Your task to perform on an android device: open app "Spotify" (install if not already installed) and enter user name: "infallible@icloud.com" and password: "implored" Image 0: 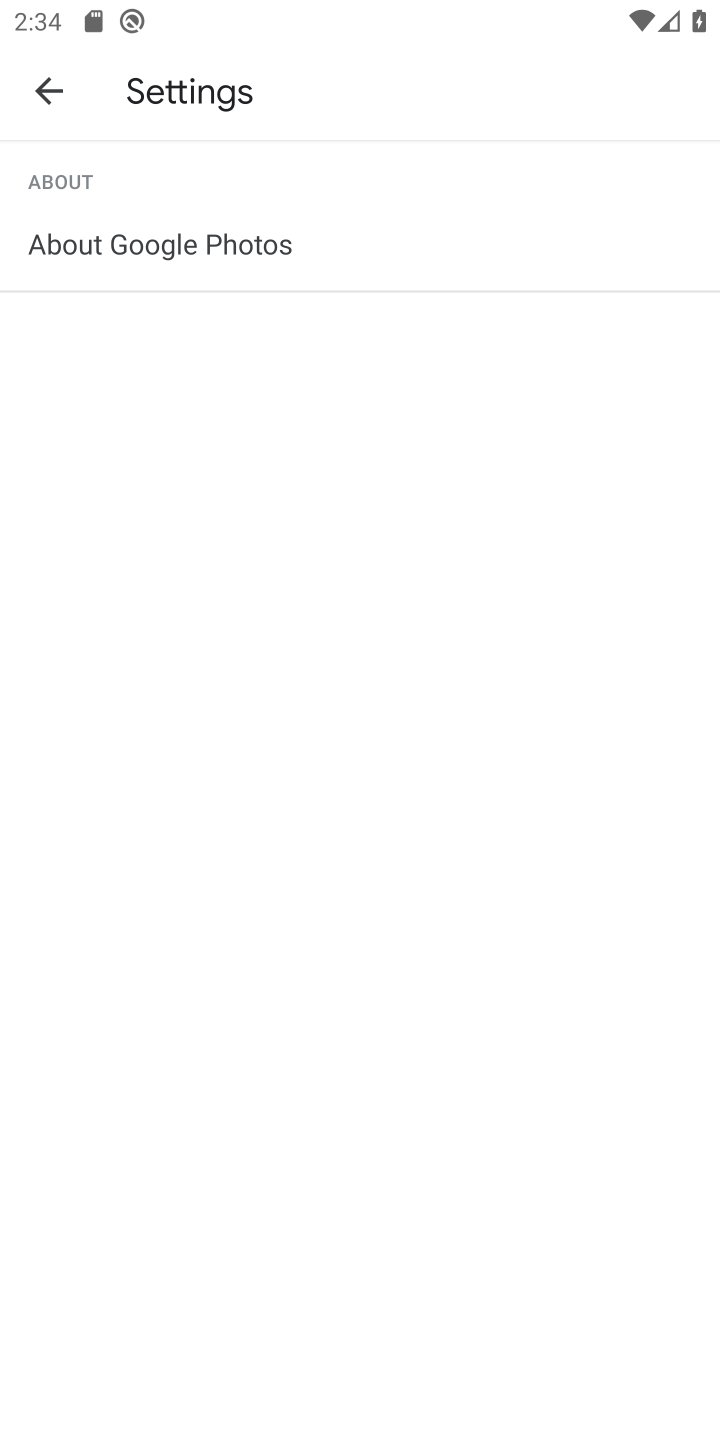
Step 0: press home button
Your task to perform on an android device: open app "Spotify" (install if not already installed) and enter user name: "infallible@icloud.com" and password: "implored" Image 1: 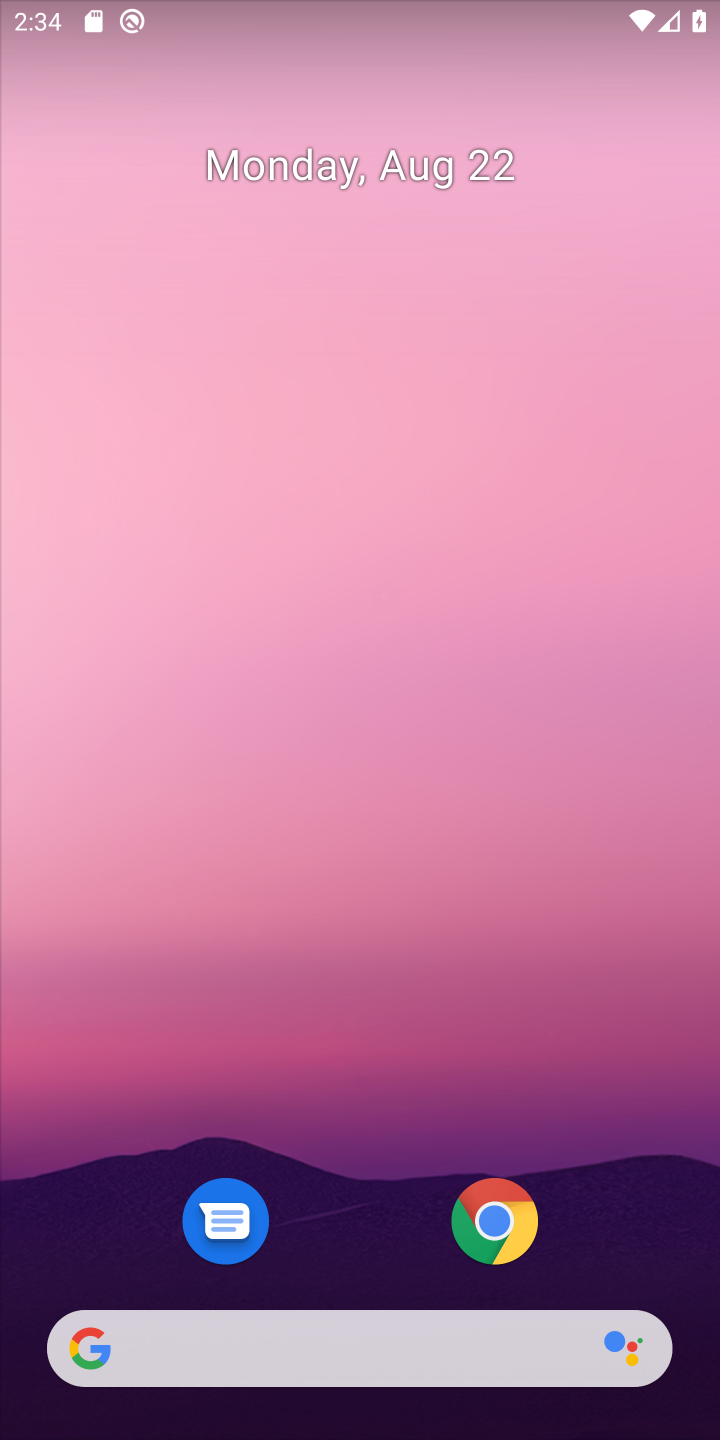
Step 1: drag from (340, 1241) to (365, 16)
Your task to perform on an android device: open app "Spotify" (install if not already installed) and enter user name: "infallible@icloud.com" and password: "implored" Image 2: 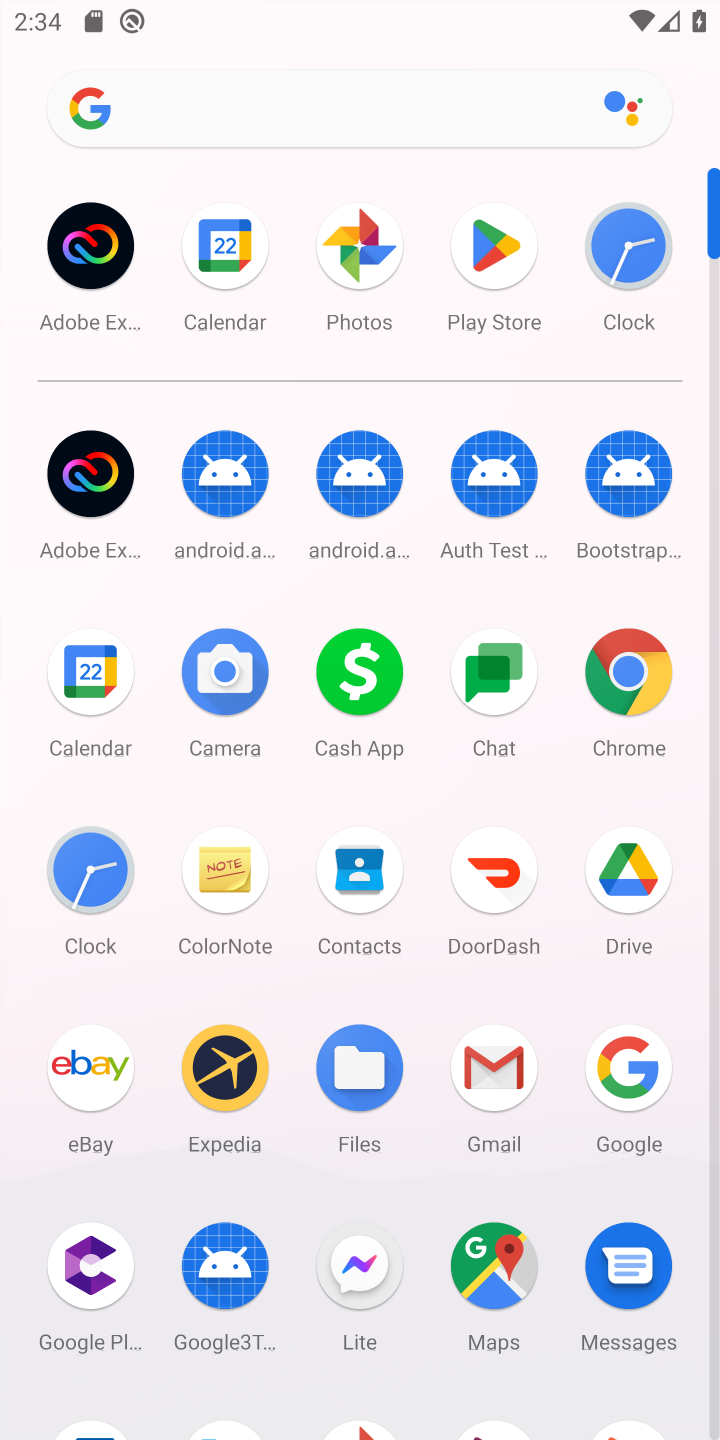
Step 2: drag from (410, 1190) to (395, 198)
Your task to perform on an android device: open app "Spotify" (install if not already installed) and enter user name: "infallible@icloud.com" and password: "implored" Image 3: 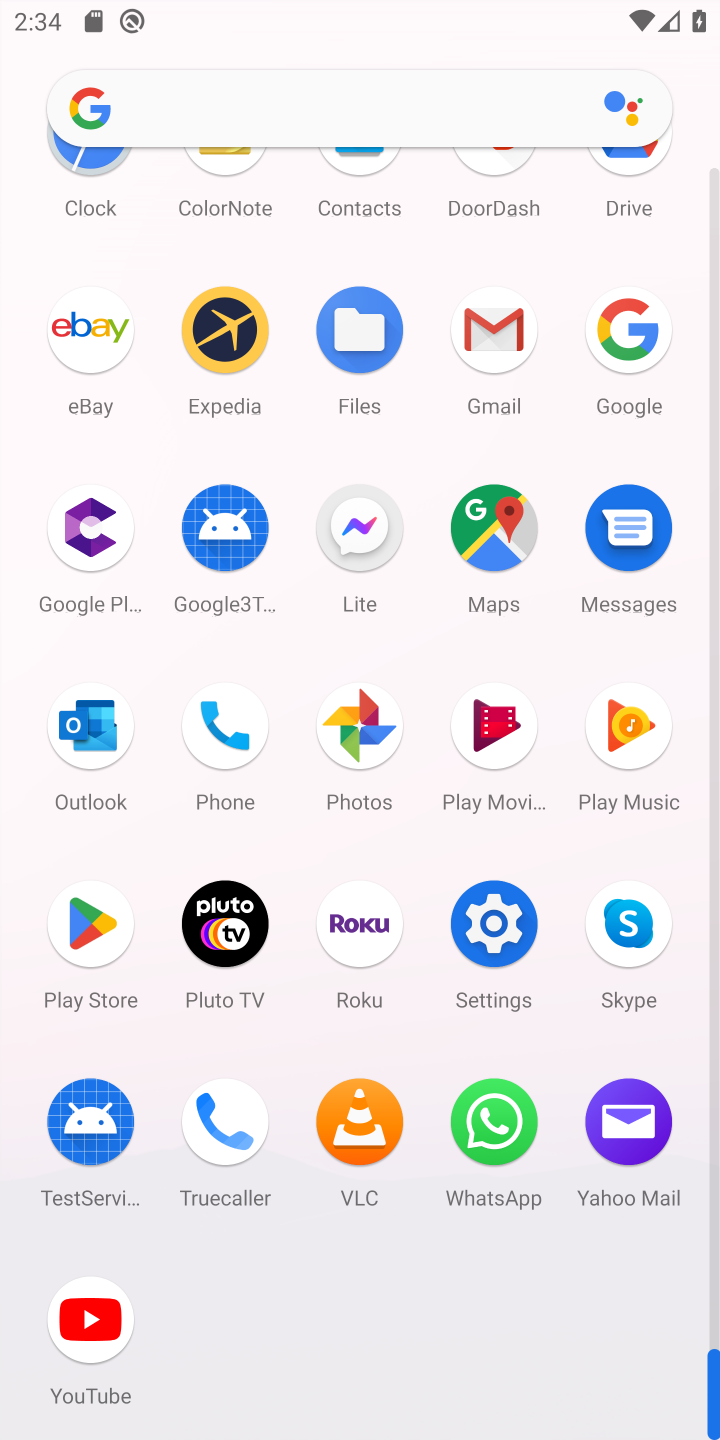
Step 3: click (80, 919)
Your task to perform on an android device: open app "Spotify" (install if not already installed) and enter user name: "infallible@icloud.com" and password: "implored" Image 4: 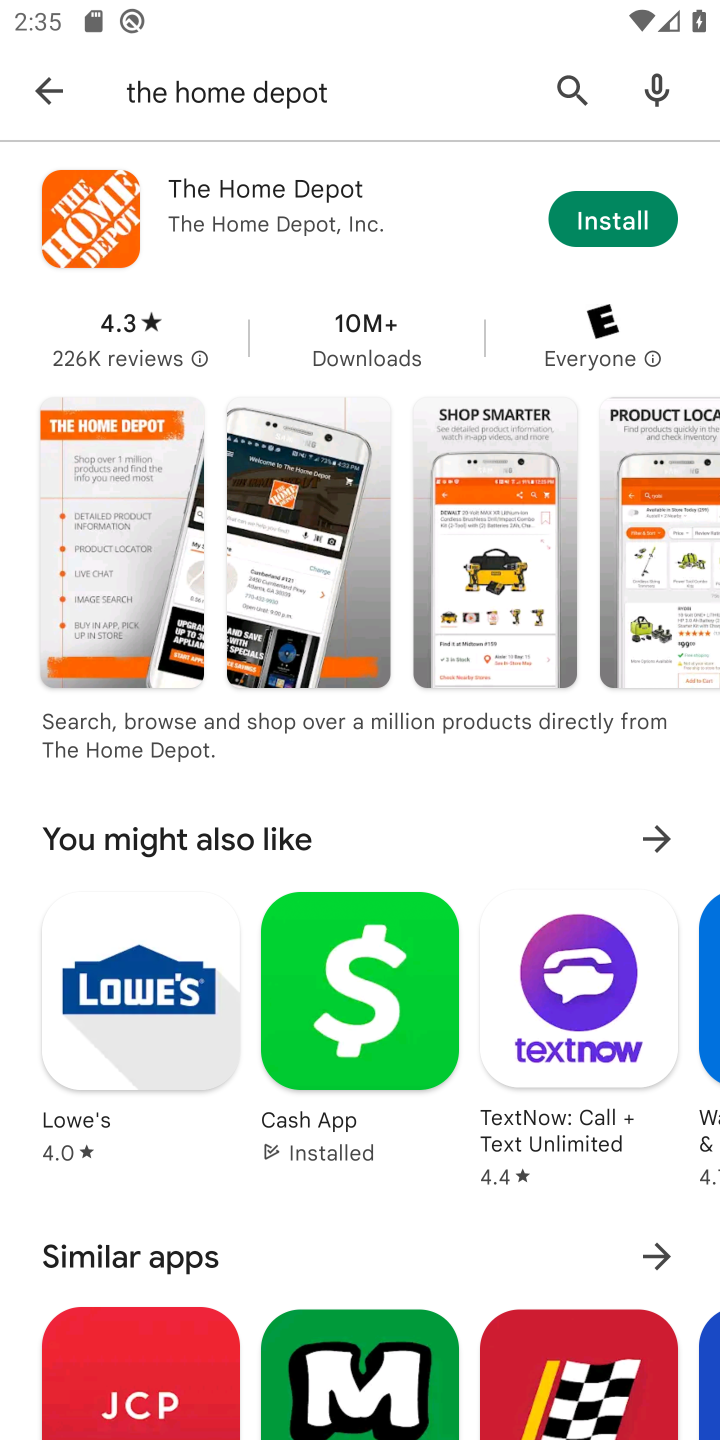
Step 4: click (570, 98)
Your task to perform on an android device: open app "Spotify" (install if not already installed) and enter user name: "infallible@icloud.com" and password: "implored" Image 5: 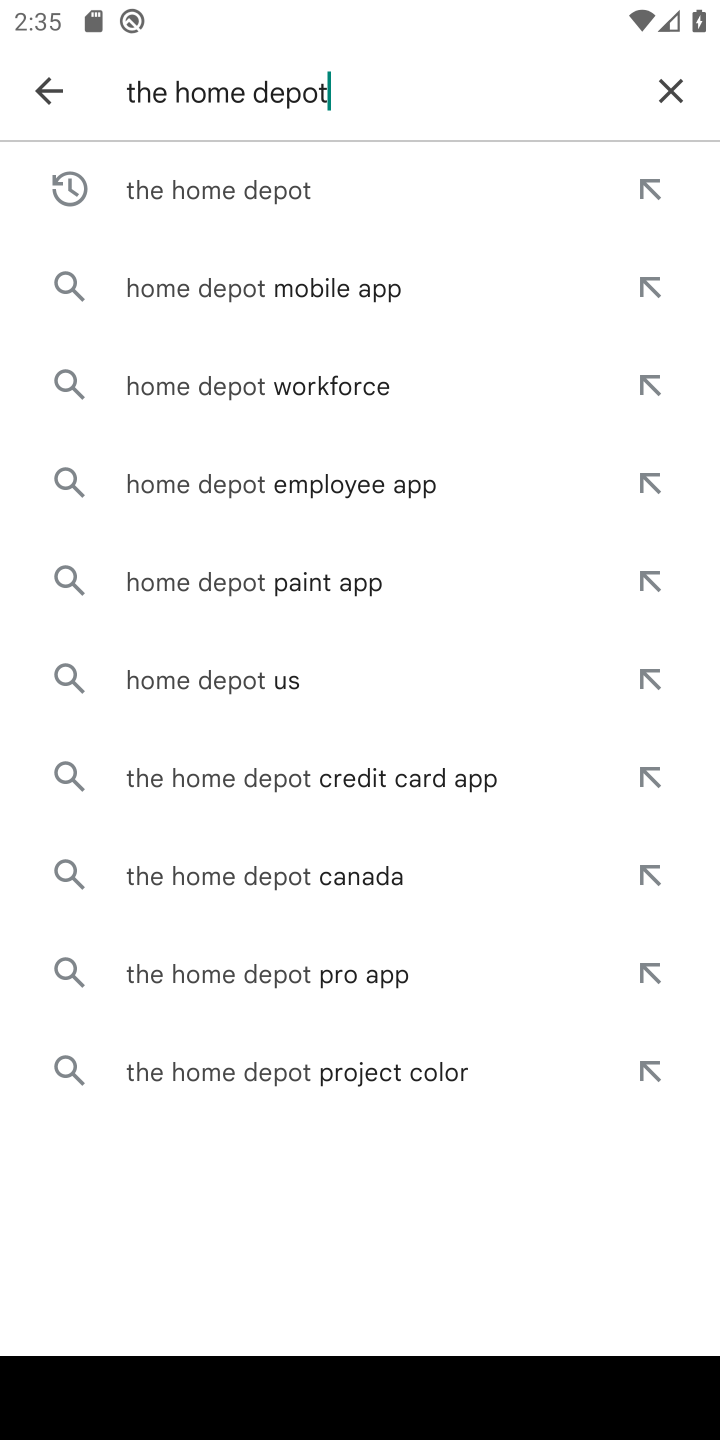
Step 5: click (658, 88)
Your task to perform on an android device: open app "Spotify" (install if not already installed) and enter user name: "infallible@icloud.com" and password: "implored" Image 6: 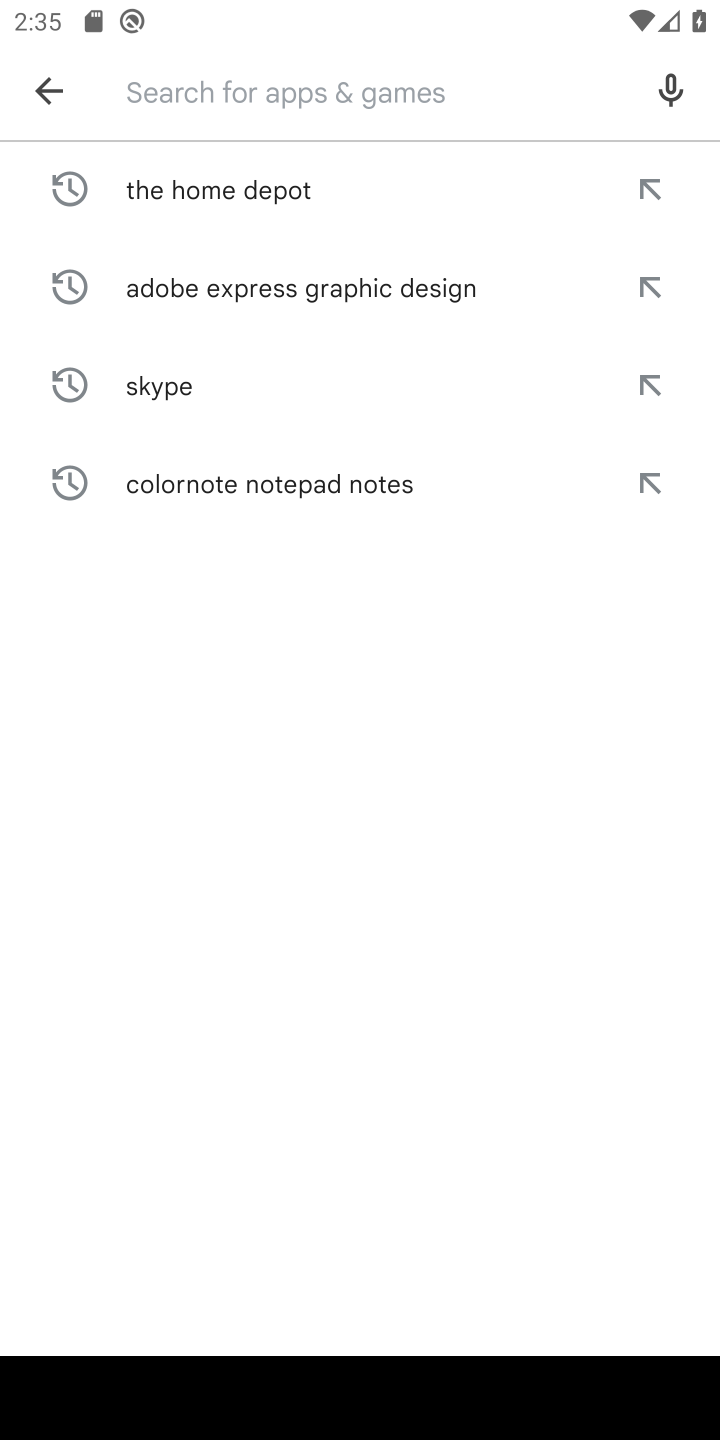
Step 6: type "Spotify"
Your task to perform on an android device: open app "Spotify" (install if not already installed) and enter user name: "infallible@icloud.com" and password: "implored" Image 7: 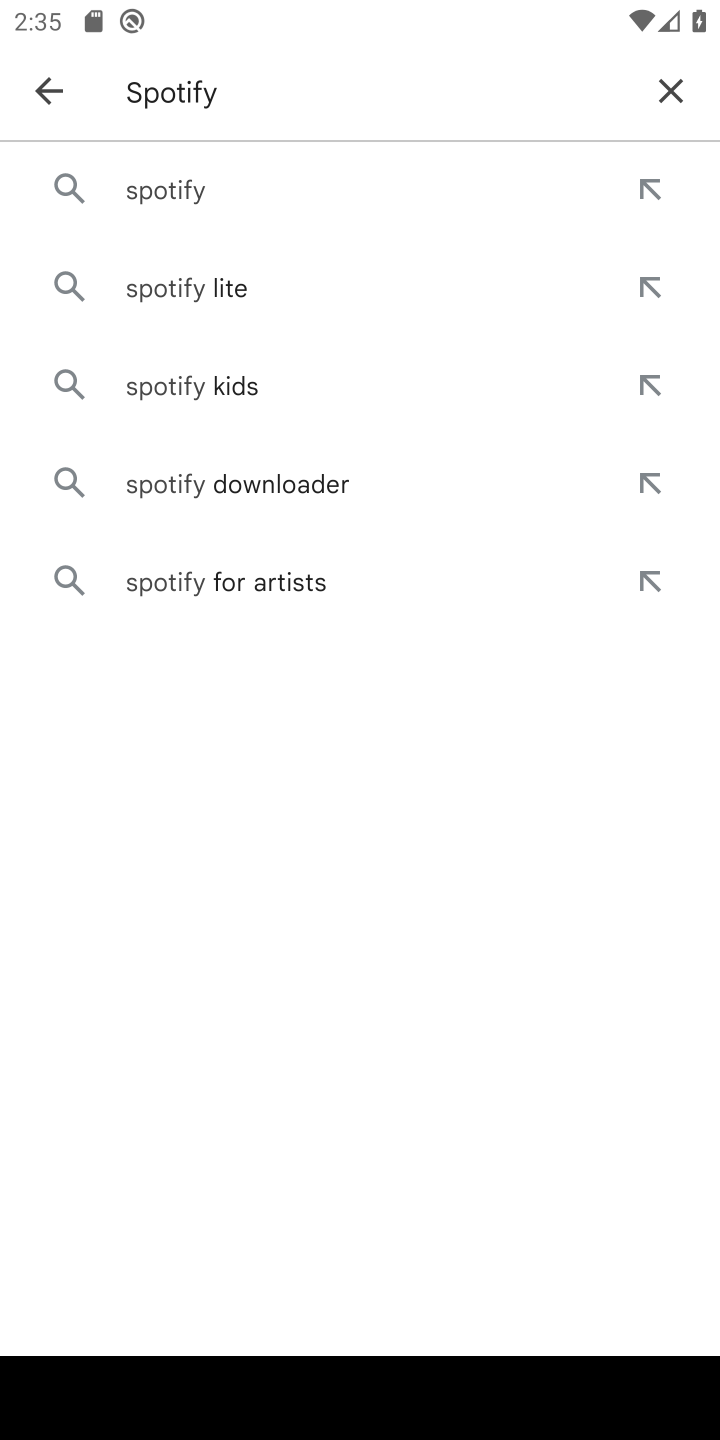
Step 7: click (220, 189)
Your task to perform on an android device: open app "Spotify" (install if not already installed) and enter user name: "infallible@icloud.com" and password: "implored" Image 8: 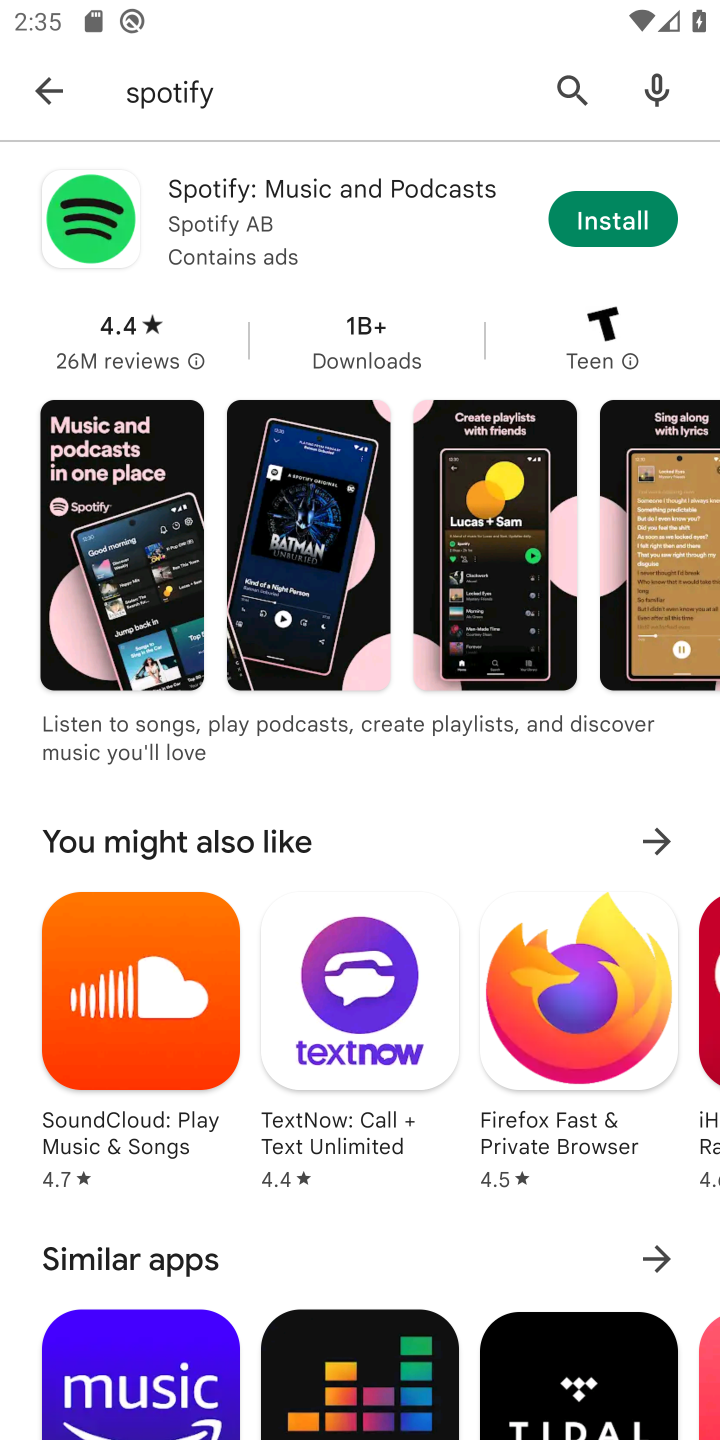
Step 8: click (614, 207)
Your task to perform on an android device: open app "Spotify" (install if not already installed) and enter user name: "infallible@icloud.com" and password: "implored" Image 9: 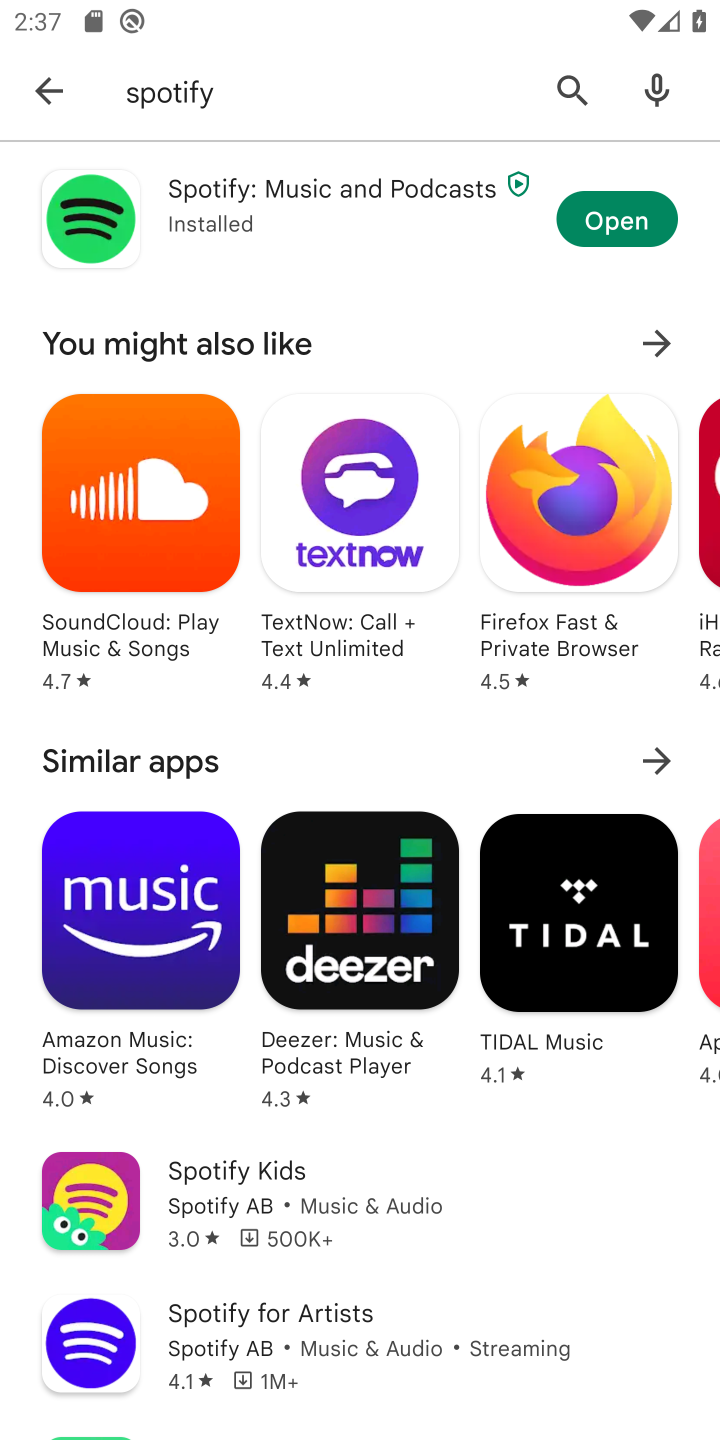
Step 9: click (633, 218)
Your task to perform on an android device: open app "Spotify" (install if not already installed) and enter user name: "infallible@icloud.com" and password: "implored" Image 10: 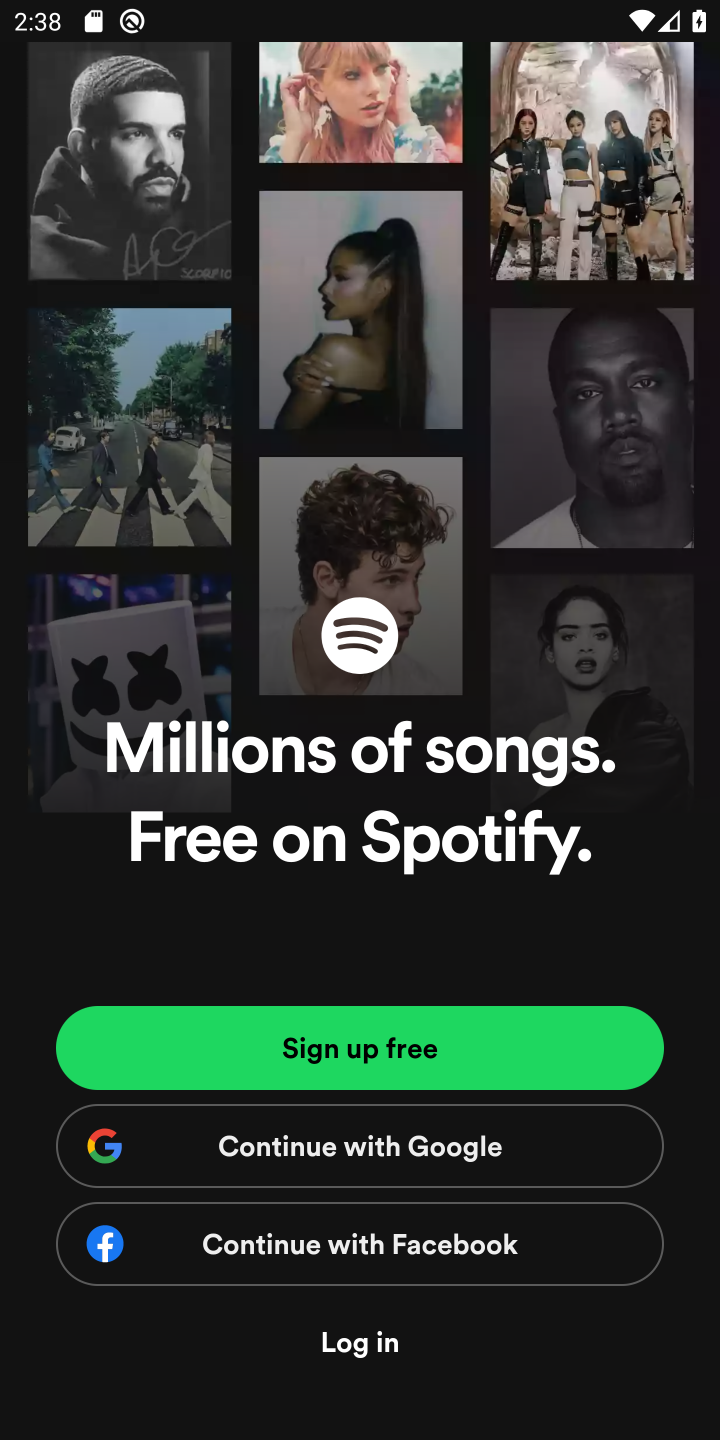
Step 10: click (359, 1336)
Your task to perform on an android device: open app "Spotify" (install if not already installed) and enter user name: "infallible@icloud.com" and password: "implored" Image 11: 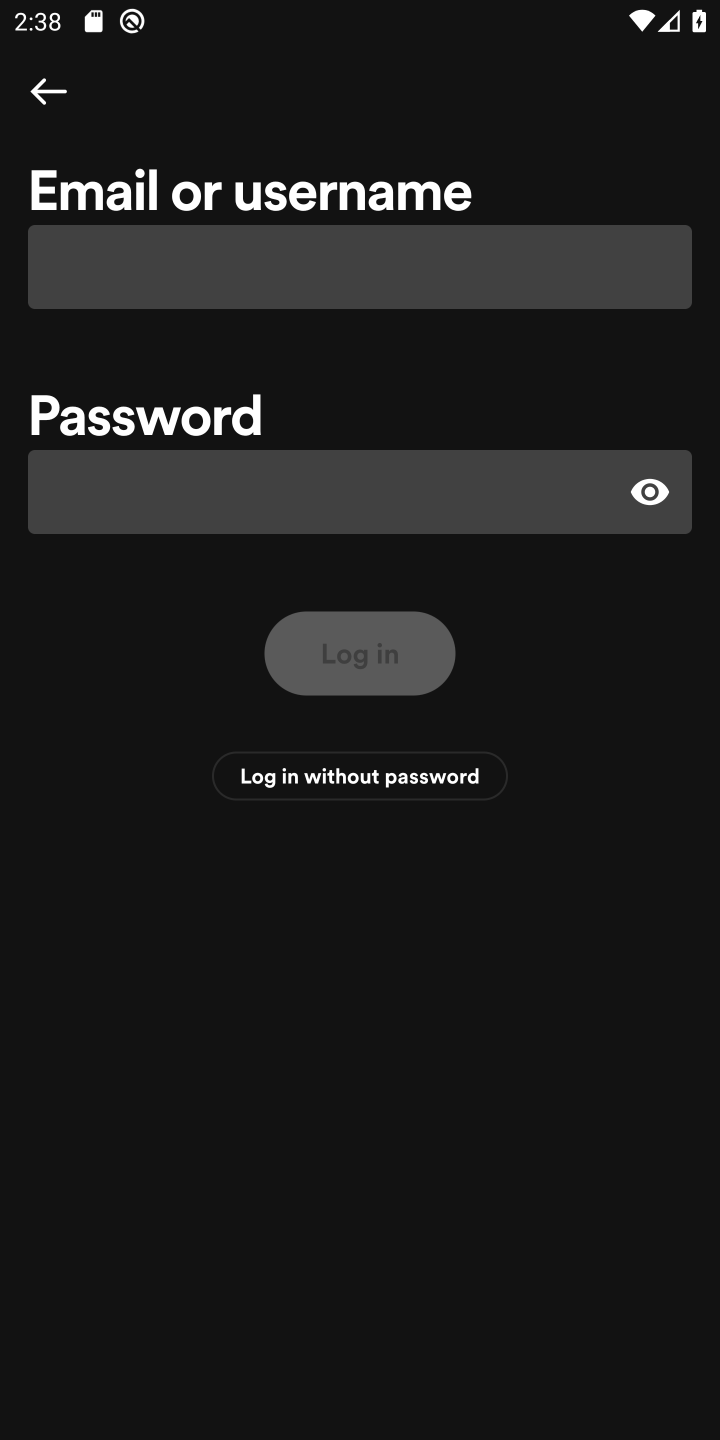
Step 11: click (189, 272)
Your task to perform on an android device: open app "Spotify" (install if not already installed) and enter user name: "infallible@icloud.com" and password: "implored" Image 12: 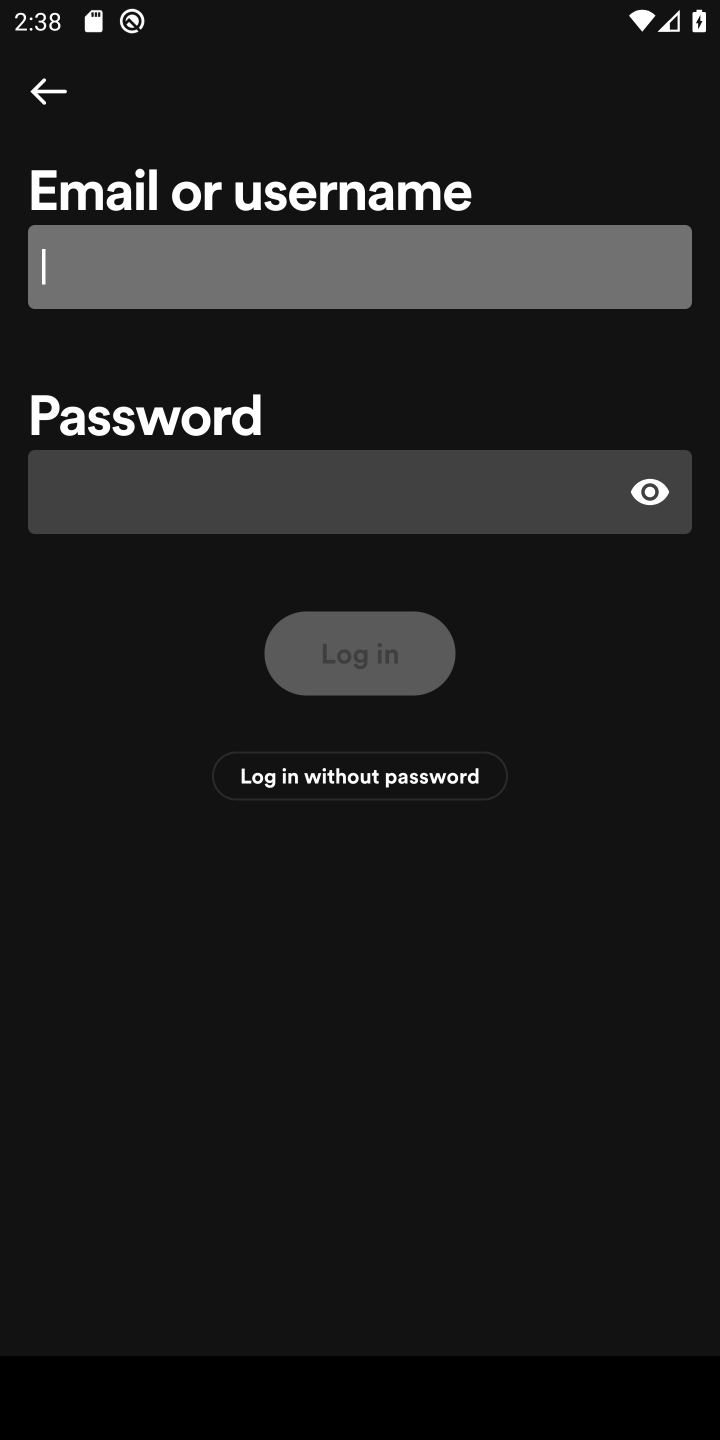
Step 12: click (142, 269)
Your task to perform on an android device: open app "Spotify" (install if not already installed) and enter user name: "infallible@icloud.com" and password: "implored" Image 13: 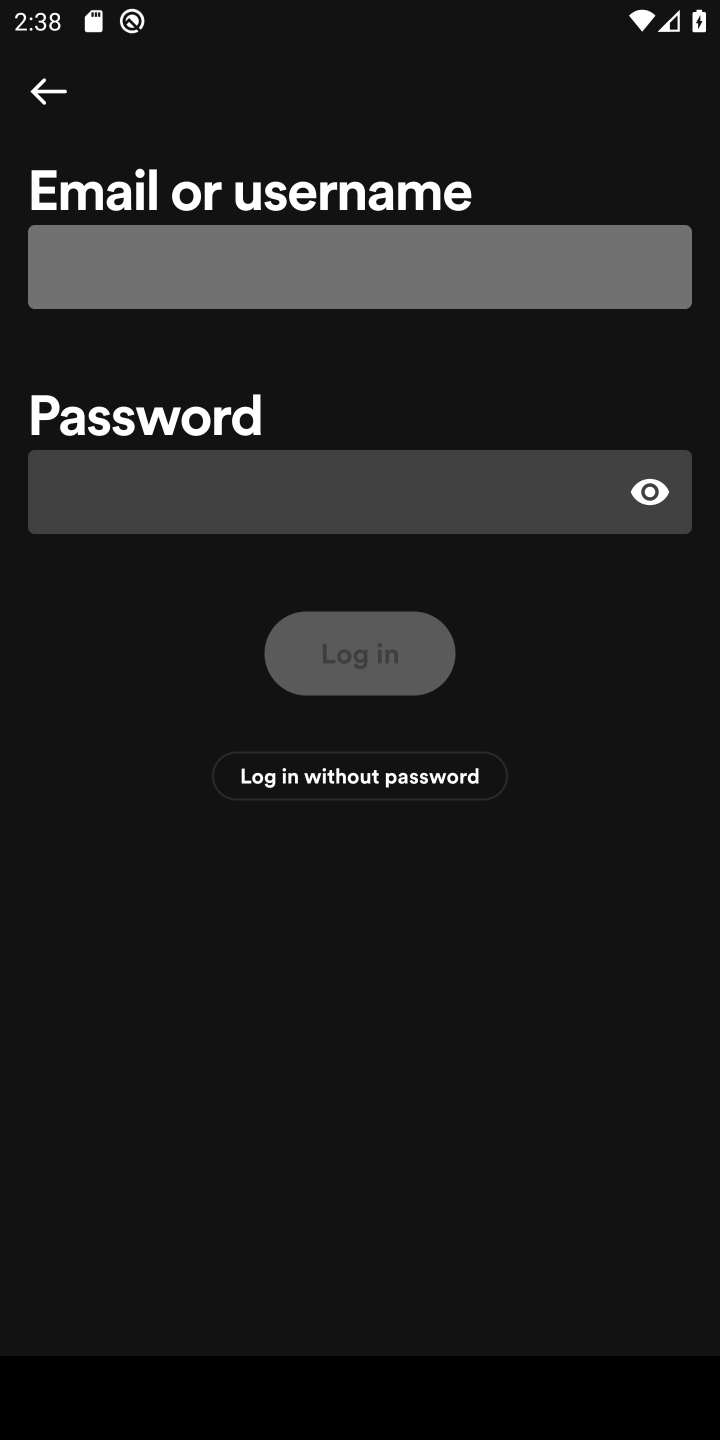
Step 13: type "infallible@icloud.com"
Your task to perform on an android device: open app "Spotify" (install if not already installed) and enter user name: "infallible@icloud.com" and password: "implored" Image 14: 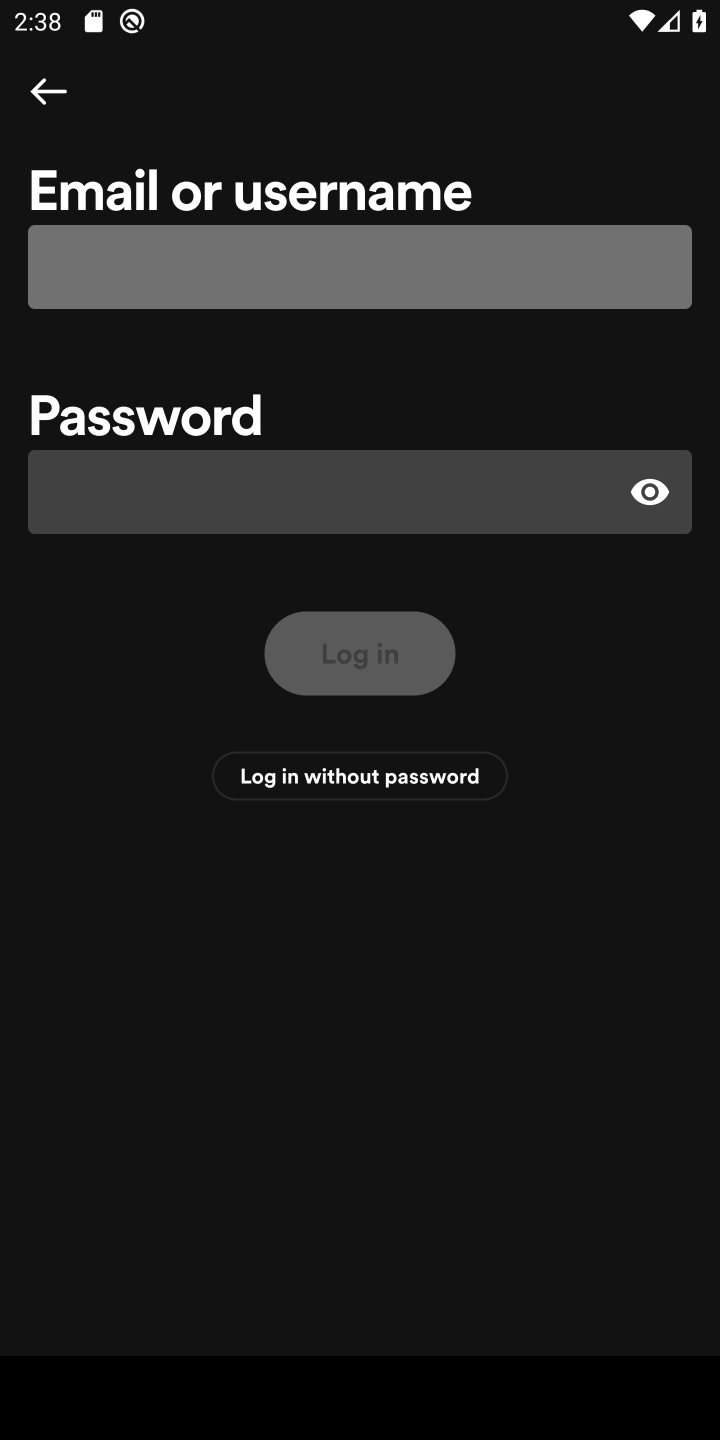
Step 14: click (238, 491)
Your task to perform on an android device: open app "Spotify" (install if not already installed) and enter user name: "infallible@icloud.com" and password: "implored" Image 15: 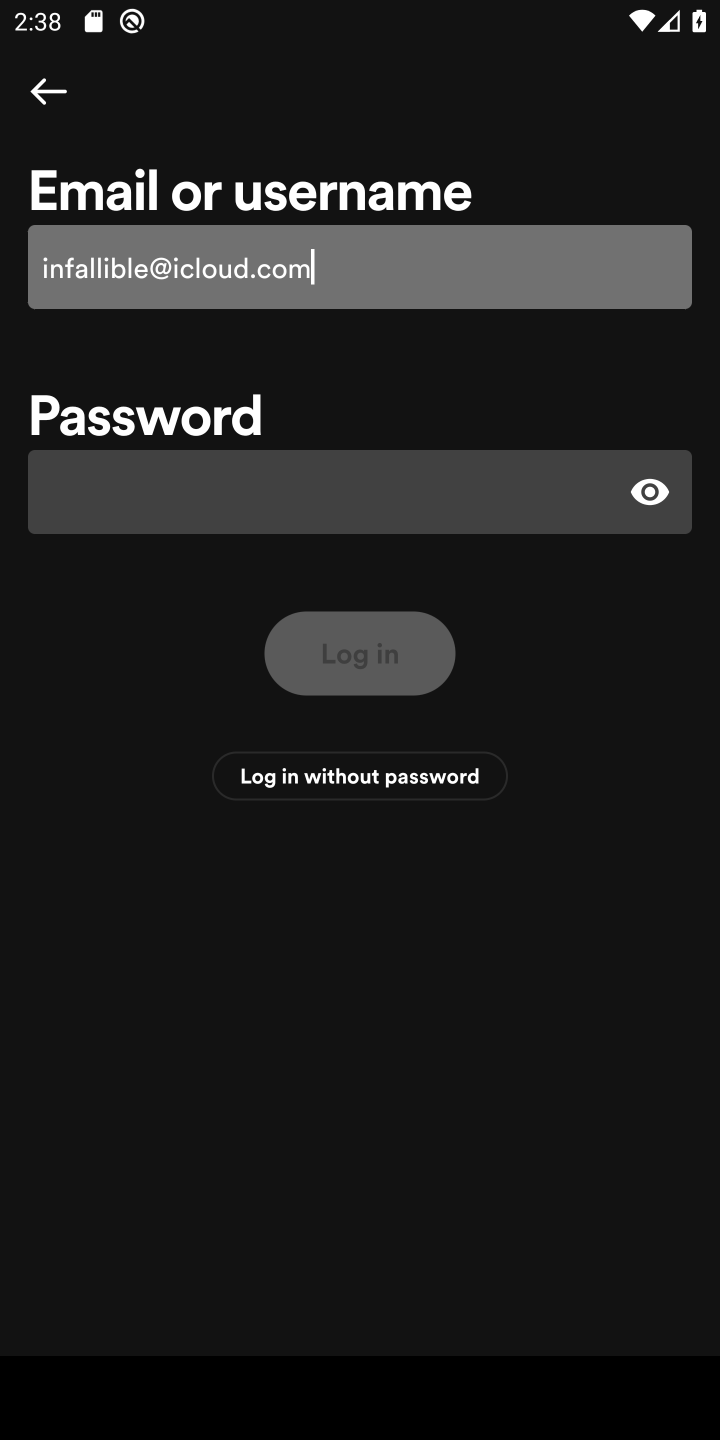
Step 15: type ""
Your task to perform on an android device: open app "Spotify" (install if not already installed) and enter user name: "infallible@icloud.com" and password: "implored" Image 16: 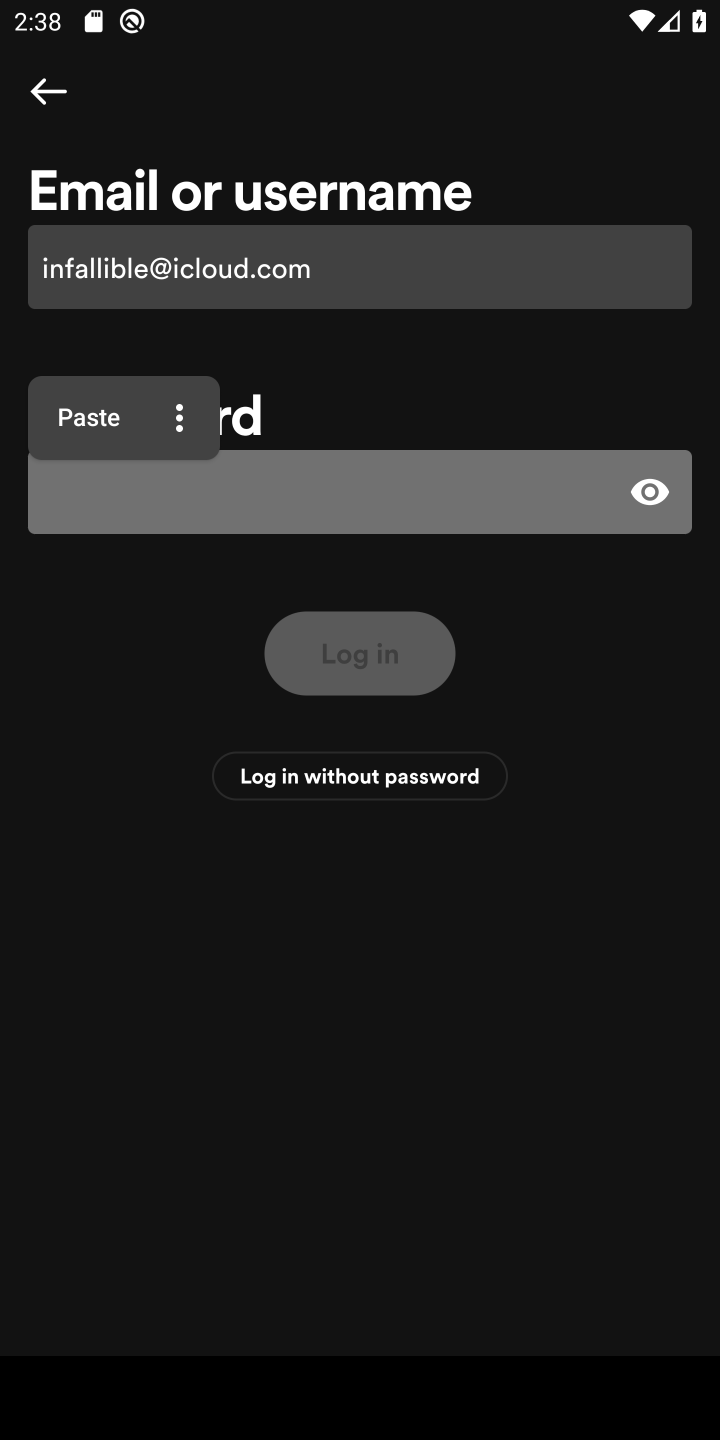
Step 16: type "implored"
Your task to perform on an android device: open app "Spotify" (install if not already installed) and enter user name: "infallible@icloud.com" and password: "implored" Image 17: 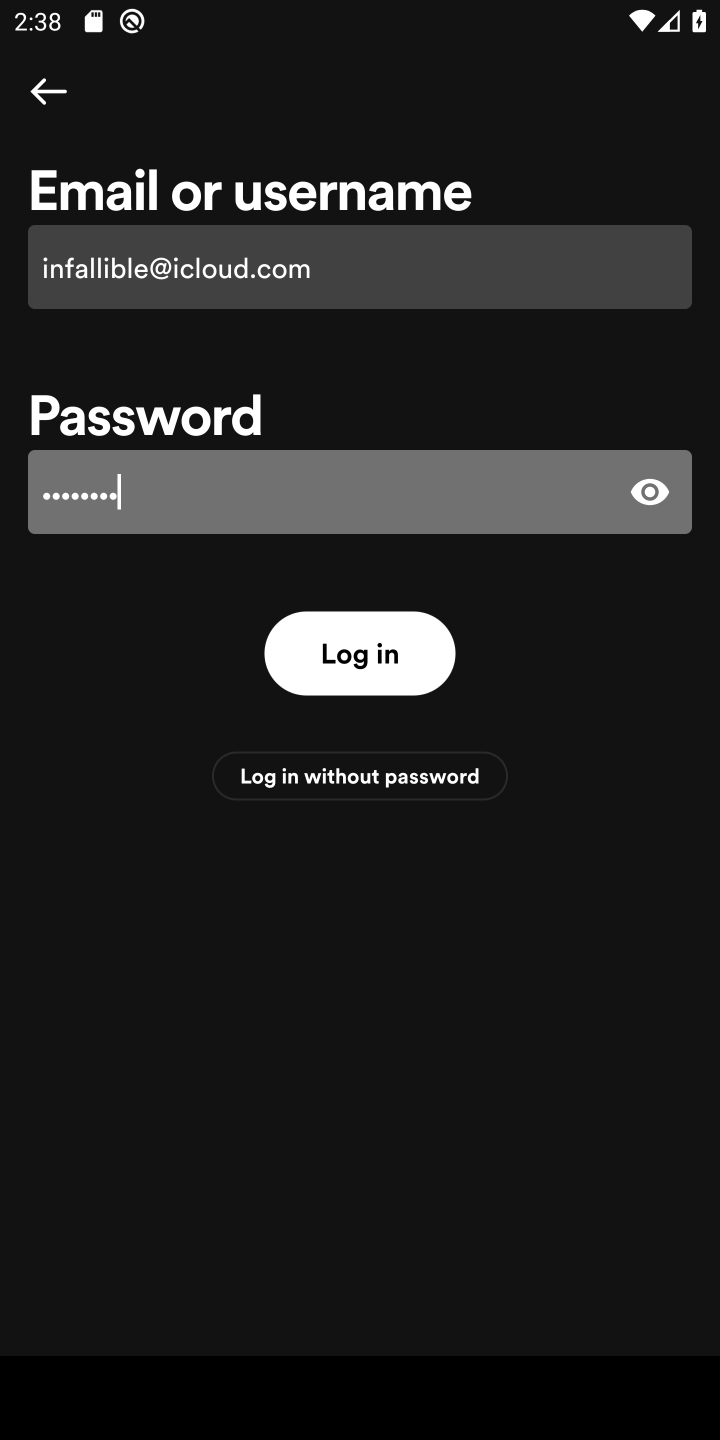
Step 17: click (358, 647)
Your task to perform on an android device: open app "Spotify" (install if not already installed) and enter user name: "infallible@icloud.com" and password: "implored" Image 18: 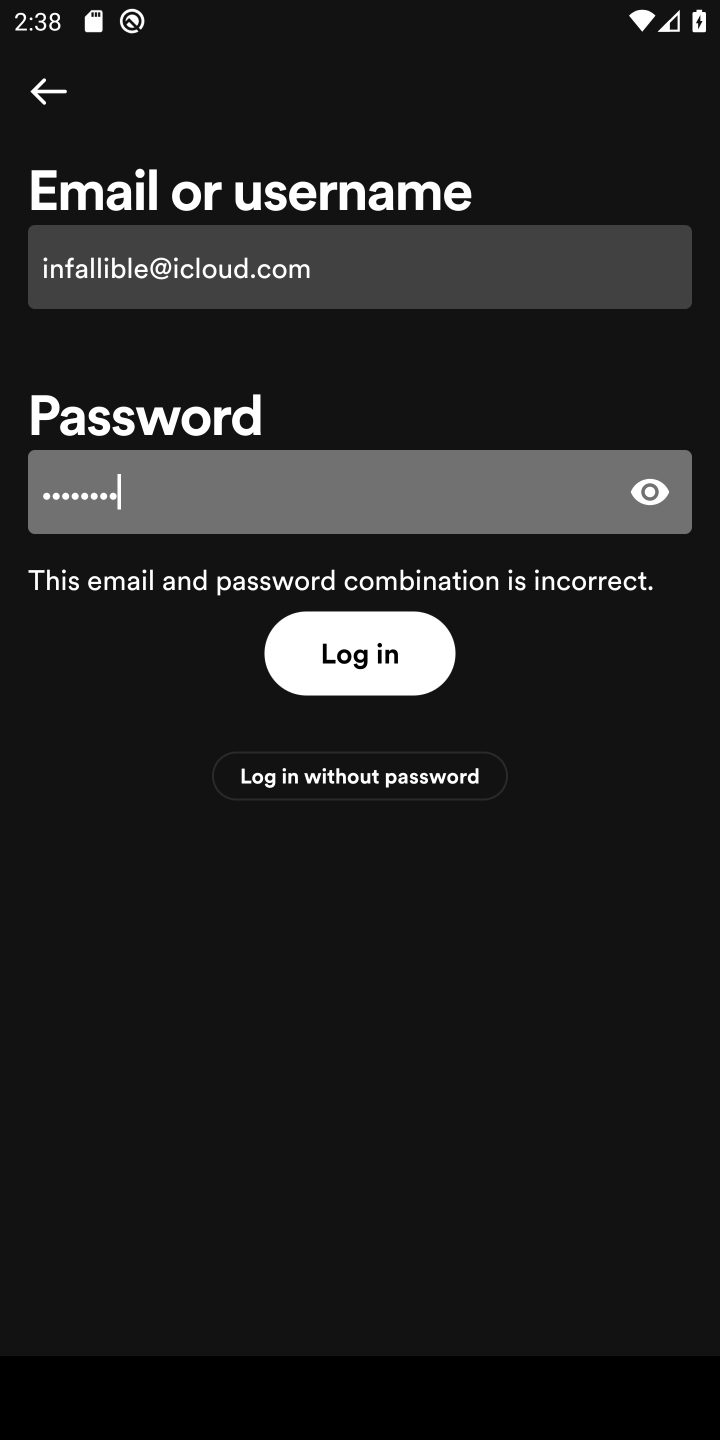
Step 18: click (335, 655)
Your task to perform on an android device: open app "Spotify" (install if not already installed) and enter user name: "infallible@icloud.com" and password: "implored" Image 19: 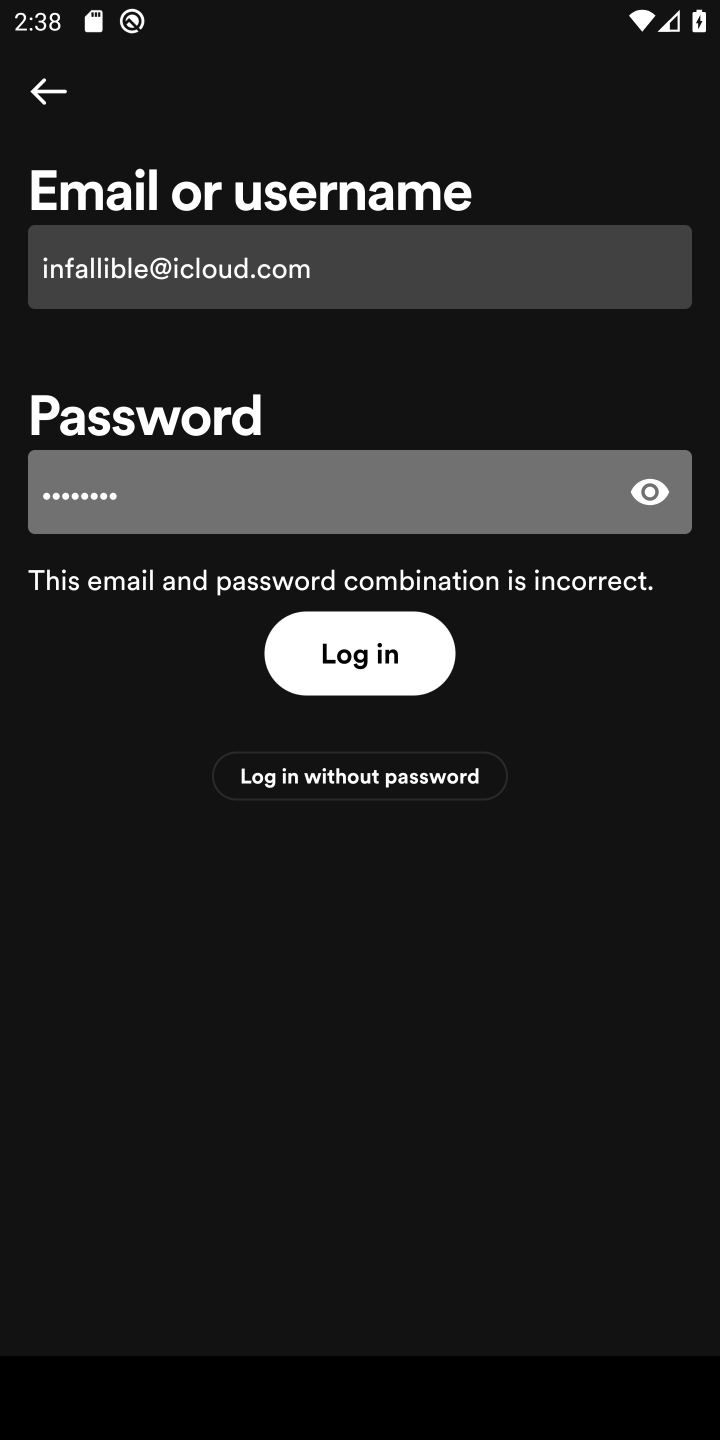
Step 19: task complete